Your task to perform on an android device: Search for Mexican restaurants on Maps Image 0: 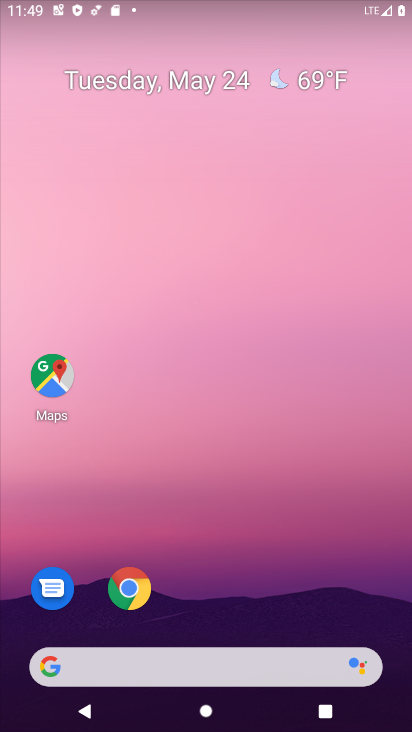
Step 0: press home button
Your task to perform on an android device: Search for Mexican restaurants on Maps Image 1: 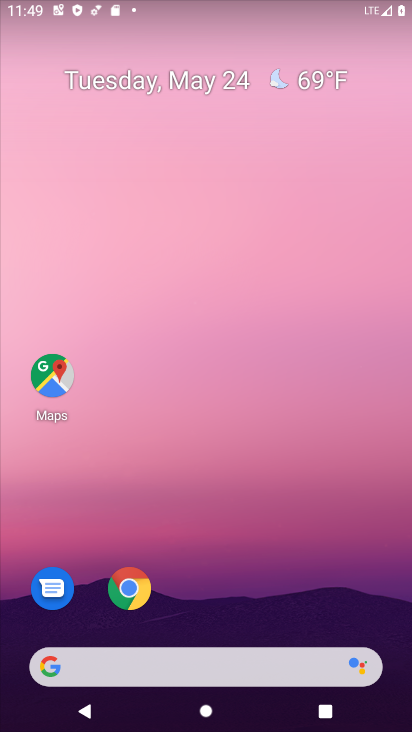
Step 1: drag from (204, 626) to (197, 115)
Your task to perform on an android device: Search for Mexican restaurants on Maps Image 2: 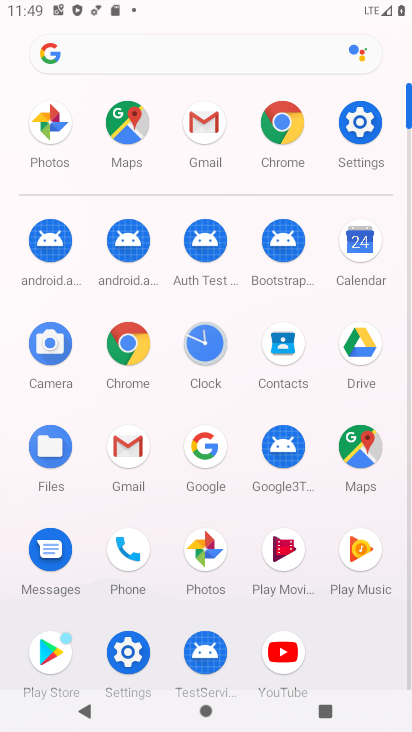
Step 2: click (124, 116)
Your task to perform on an android device: Search for Mexican restaurants on Maps Image 3: 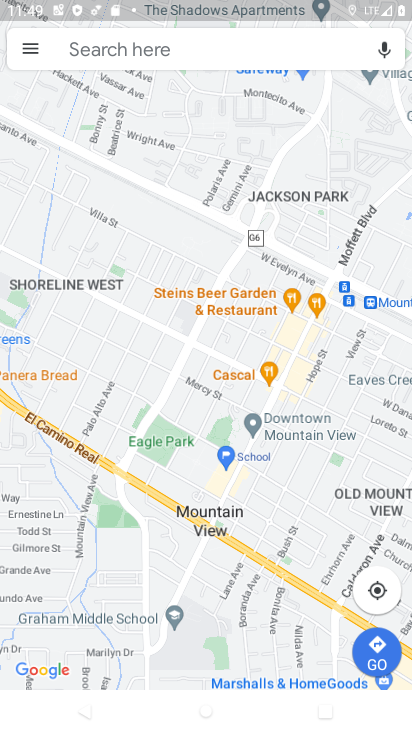
Step 3: click (106, 48)
Your task to perform on an android device: Search for Mexican restaurants on Maps Image 4: 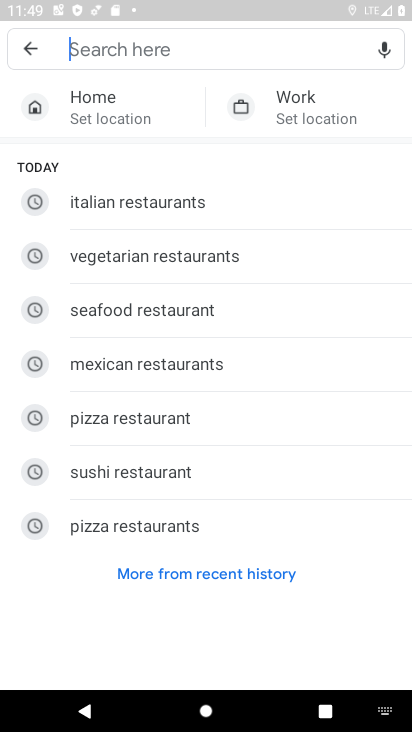
Step 4: click (236, 362)
Your task to perform on an android device: Search for Mexican restaurants on Maps Image 5: 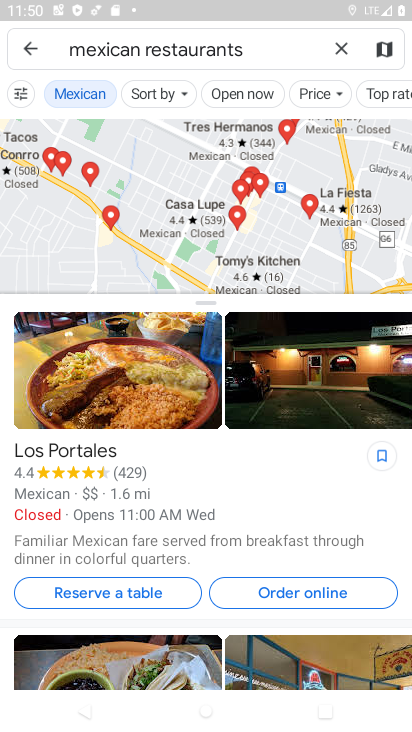
Step 5: task complete